Your task to perform on an android device: empty trash in the gmail app Image 0: 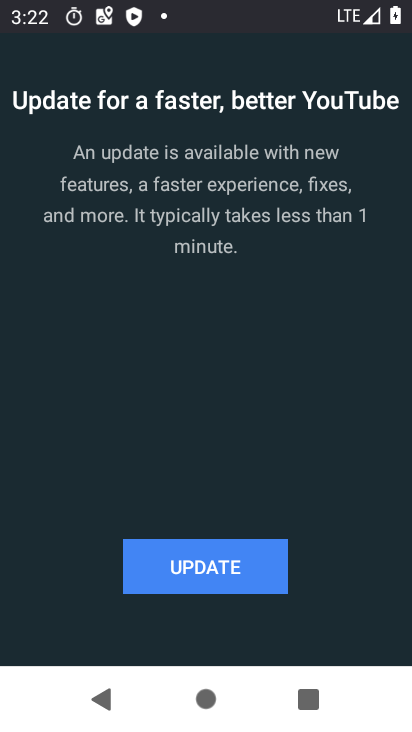
Step 0: press back button
Your task to perform on an android device: empty trash in the gmail app Image 1: 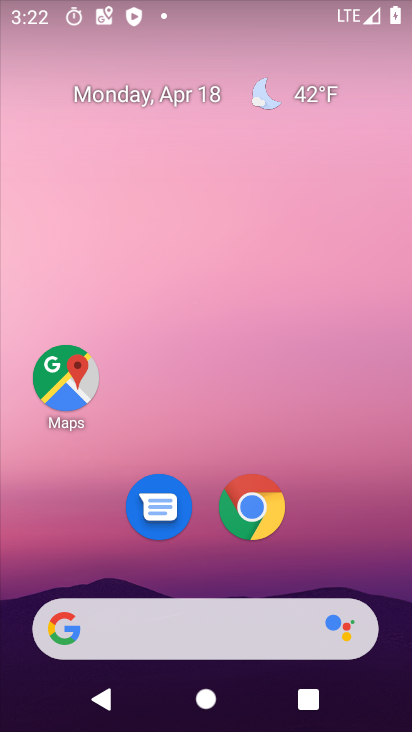
Step 1: drag from (363, 528) to (363, 134)
Your task to perform on an android device: empty trash in the gmail app Image 2: 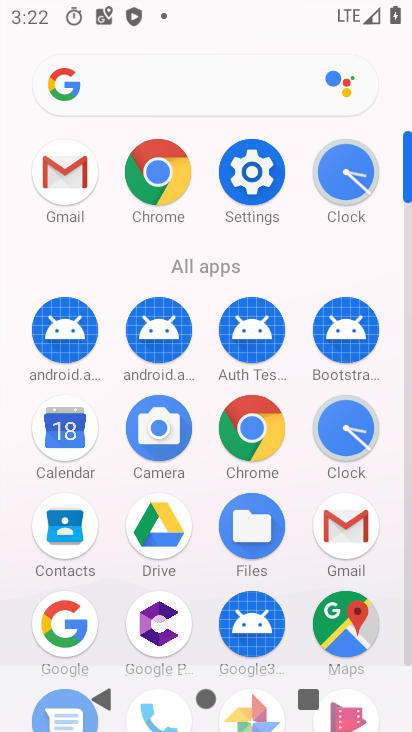
Step 2: click (341, 517)
Your task to perform on an android device: empty trash in the gmail app Image 3: 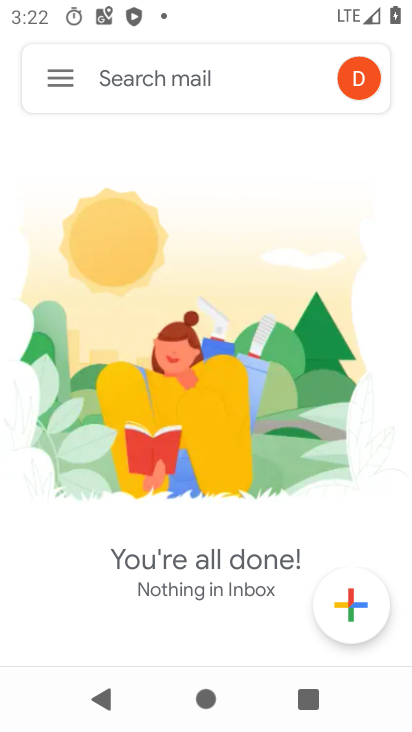
Step 3: click (61, 86)
Your task to perform on an android device: empty trash in the gmail app Image 4: 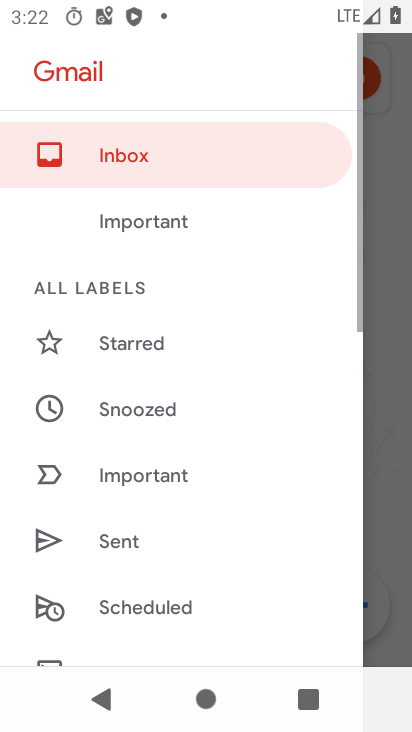
Step 4: drag from (258, 607) to (260, 205)
Your task to perform on an android device: empty trash in the gmail app Image 5: 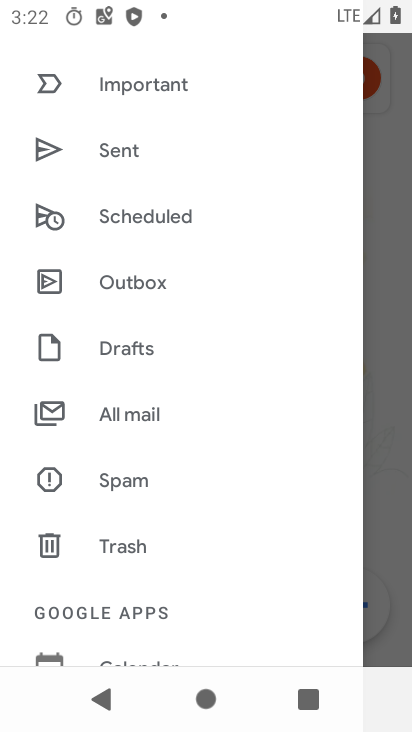
Step 5: click (124, 546)
Your task to perform on an android device: empty trash in the gmail app Image 6: 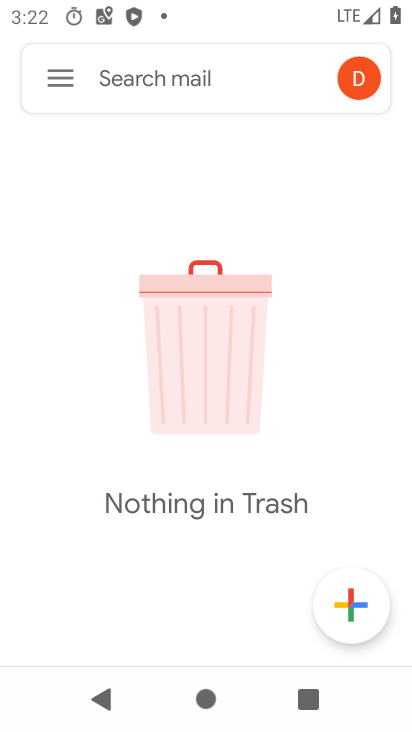
Step 6: task complete